Your task to perform on an android device: View the shopping cart on costco. Search for "usb-a to usb-b" on costco, select the first entry, add it to the cart, then select checkout. Image 0: 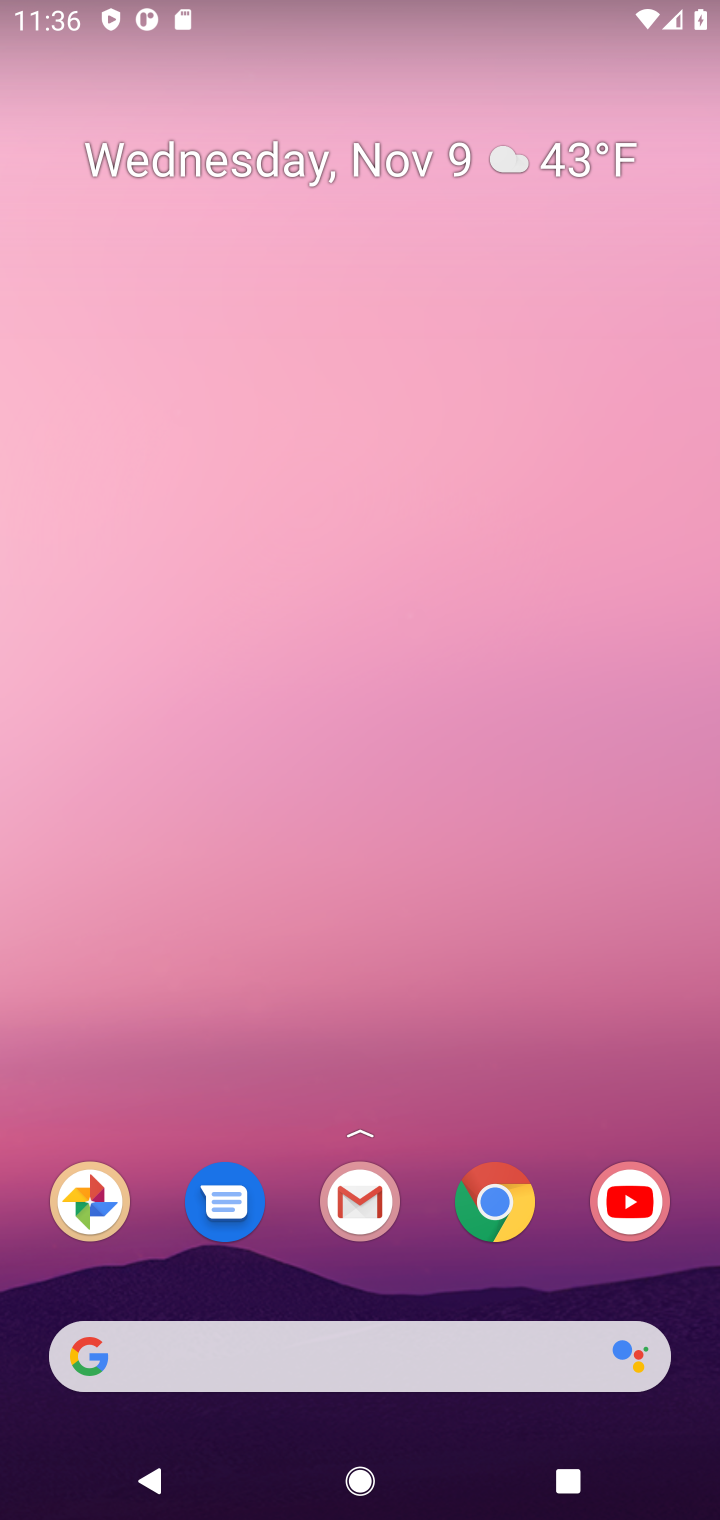
Step 0: click (488, 1204)
Your task to perform on an android device: View the shopping cart on costco. Search for "usb-a to usb-b" on costco, select the first entry, add it to the cart, then select checkout. Image 1: 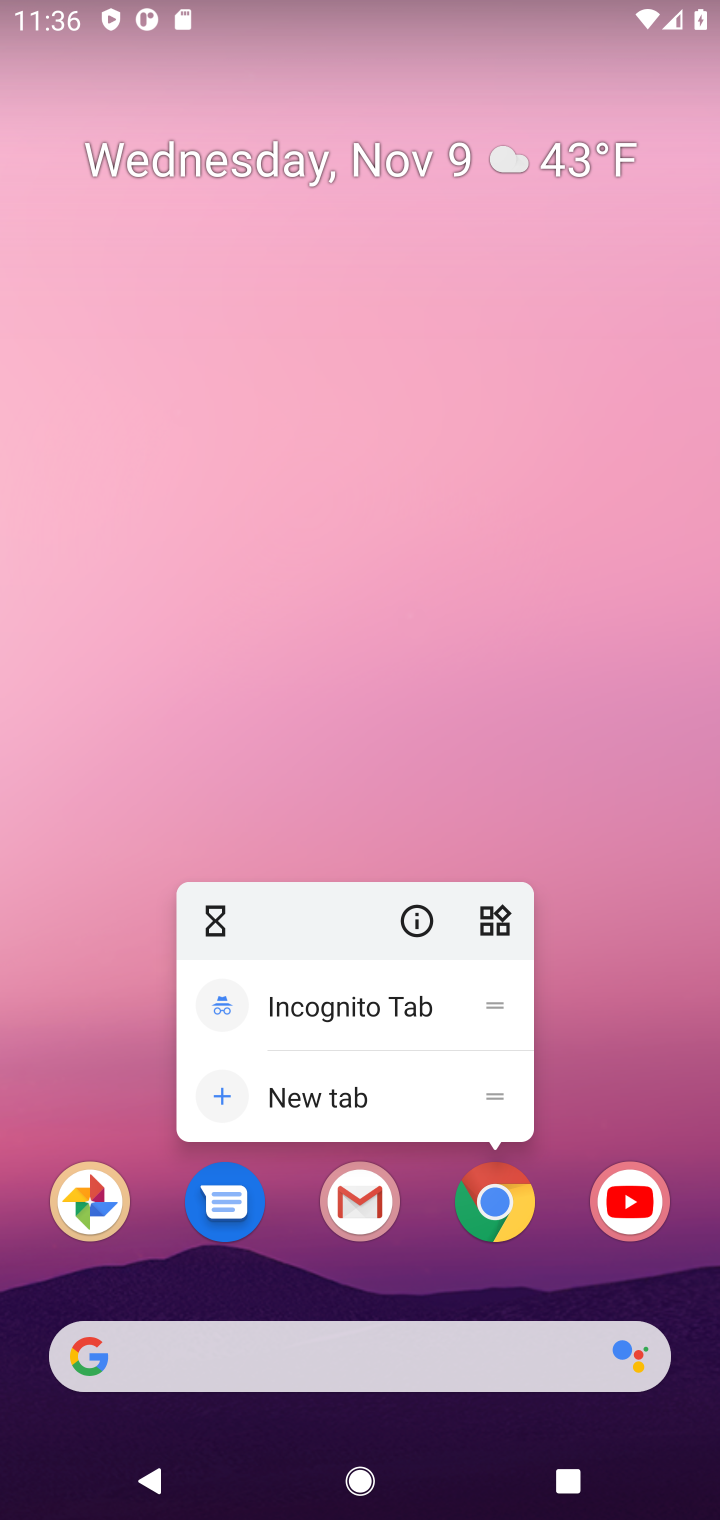
Step 1: click (496, 1208)
Your task to perform on an android device: View the shopping cart on costco. Search for "usb-a to usb-b" on costco, select the first entry, add it to the cart, then select checkout. Image 2: 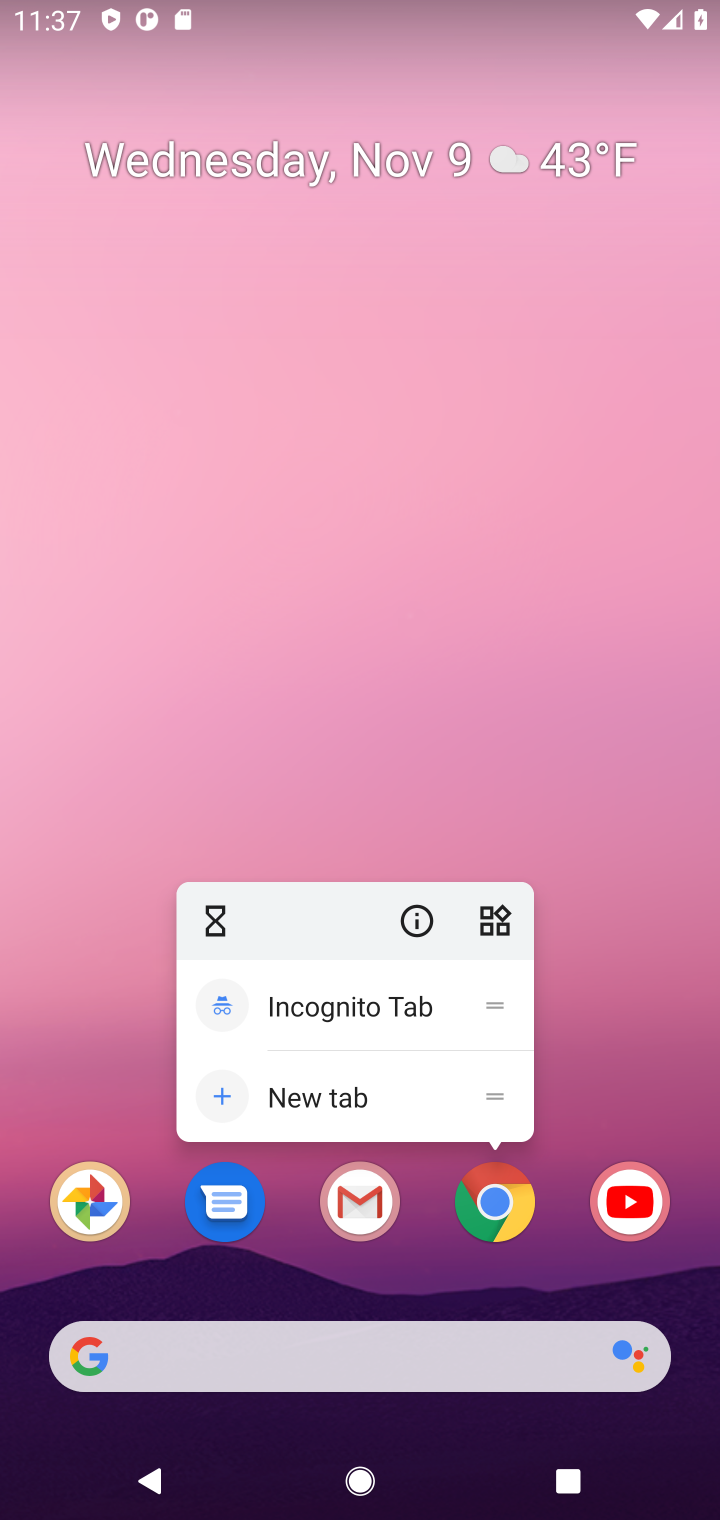
Step 2: click (496, 1208)
Your task to perform on an android device: View the shopping cart on costco. Search for "usb-a to usb-b" on costco, select the first entry, add it to the cart, then select checkout. Image 3: 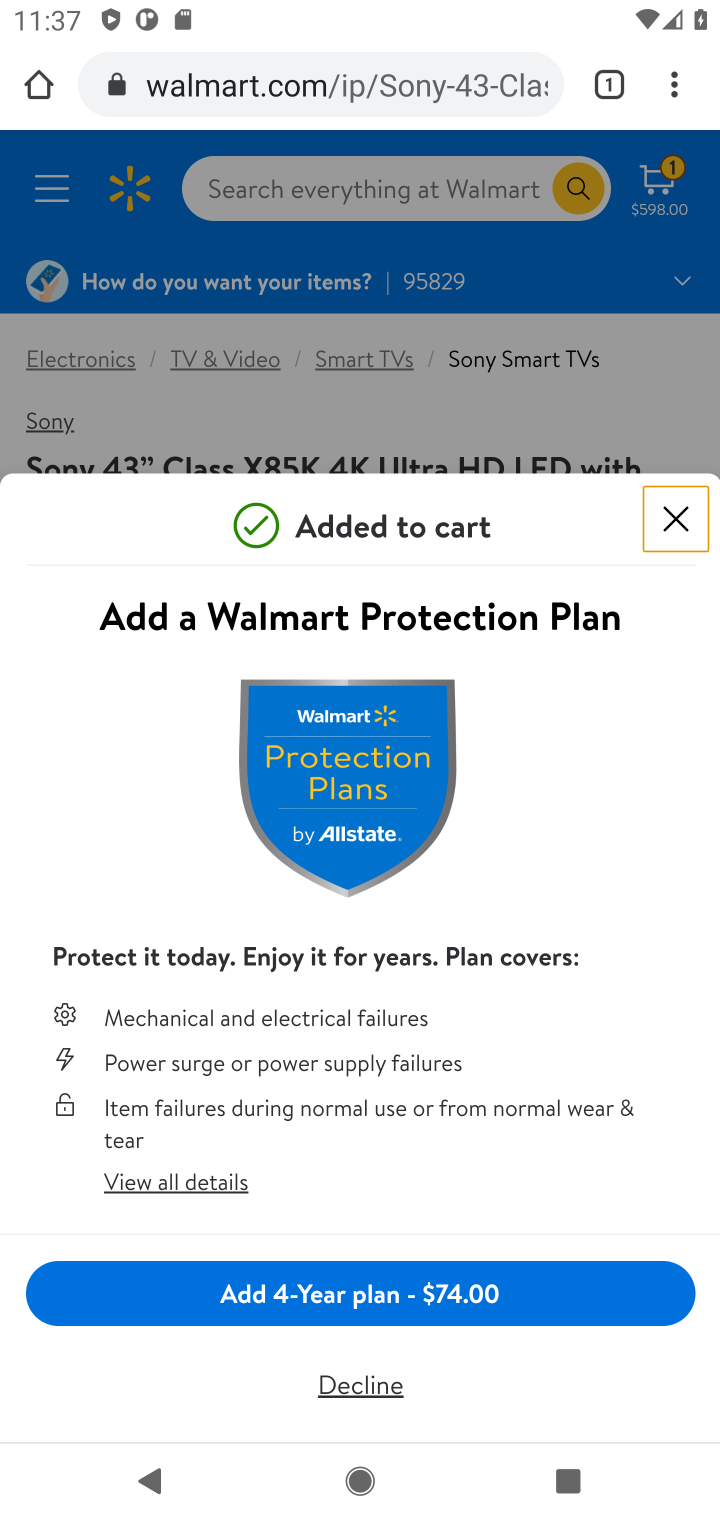
Step 3: click (436, 83)
Your task to perform on an android device: View the shopping cart on costco. Search for "usb-a to usb-b" on costco, select the first entry, add it to the cart, then select checkout. Image 4: 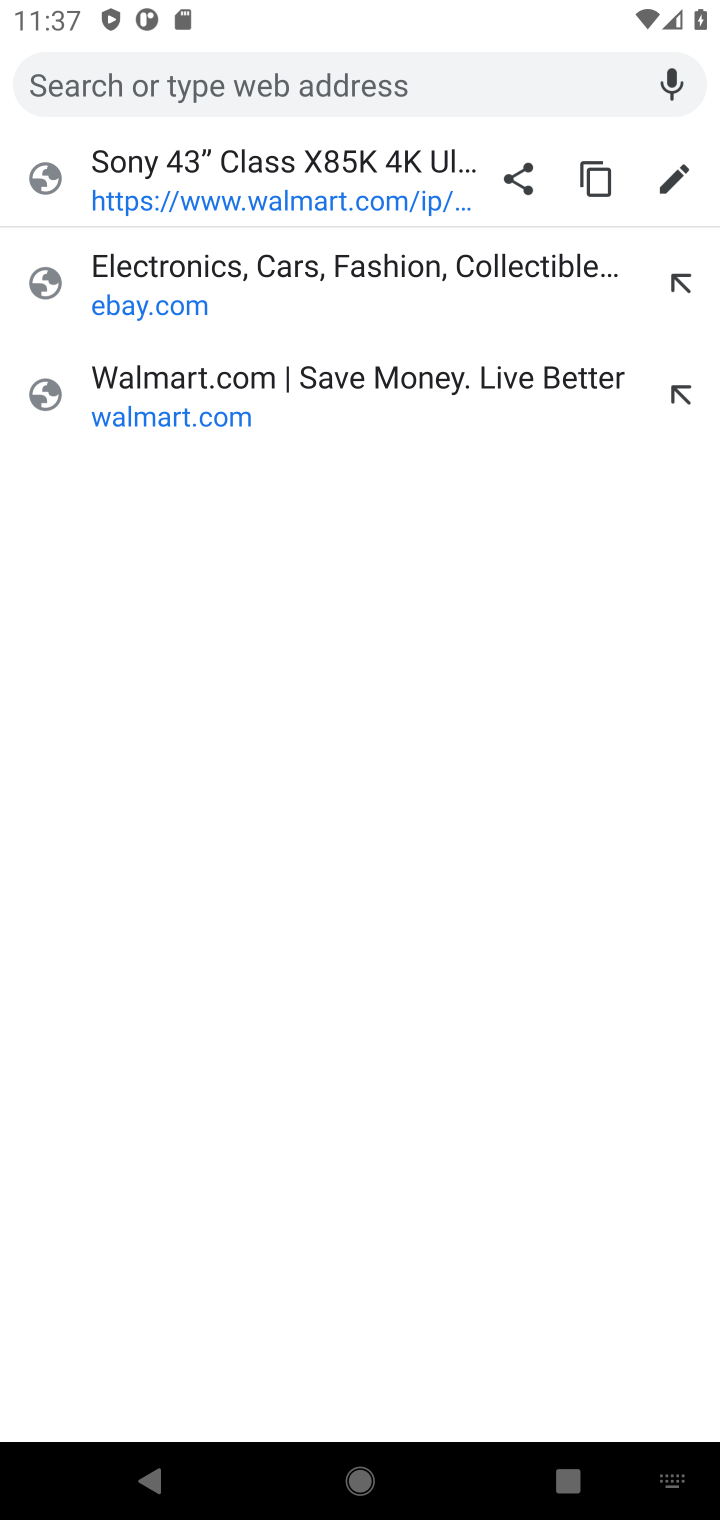
Step 4: type "costco"
Your task to perform on an android device: View the shopping cart on costco. Search for "usb-a to usb-b" on costco, select the first entry, add it to the cart, then select checkout. Image 5: 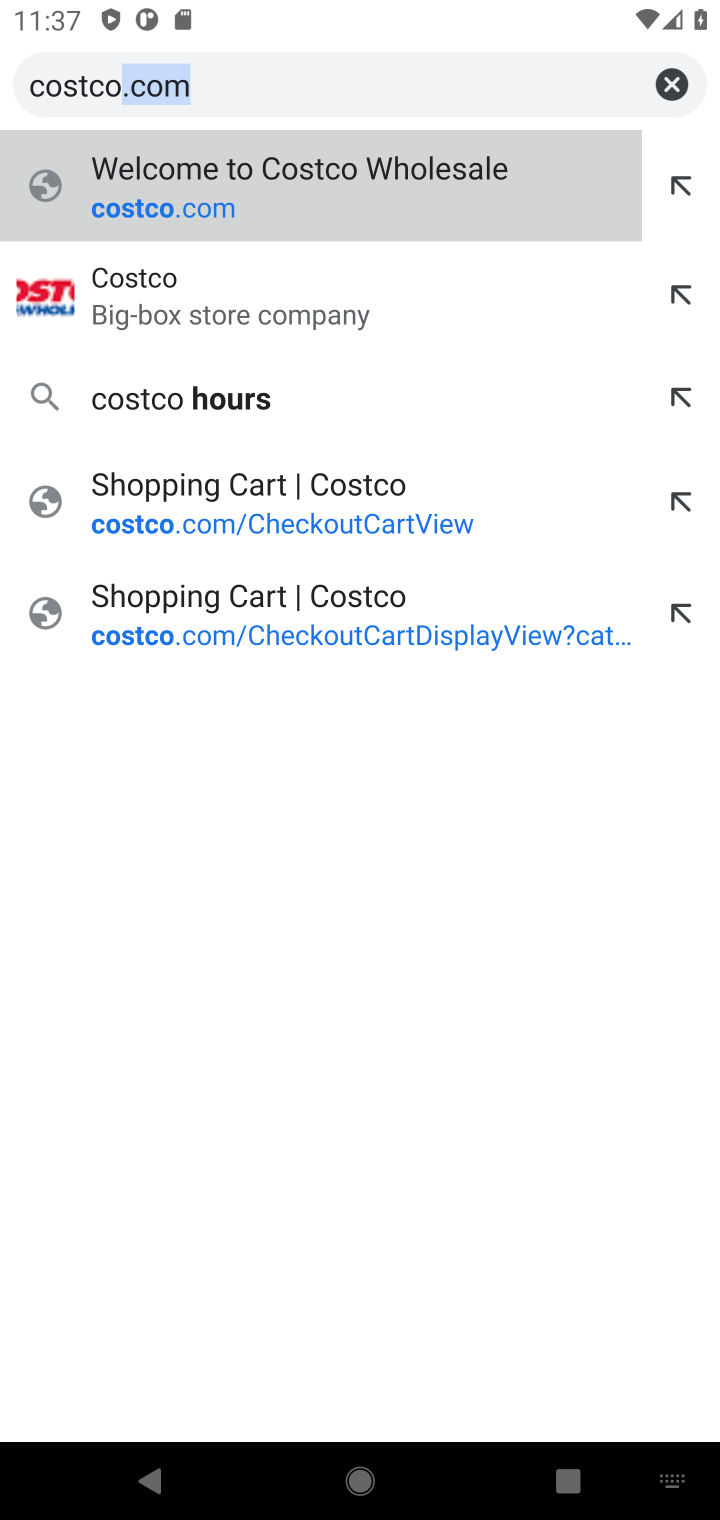
Step 5: press enter
Your task to perform on an android device: View the shopping cart on costco. Search for "usb-a to usb-b" on costco, select the first entry, add it to the cart, then select checkout. Image 6: 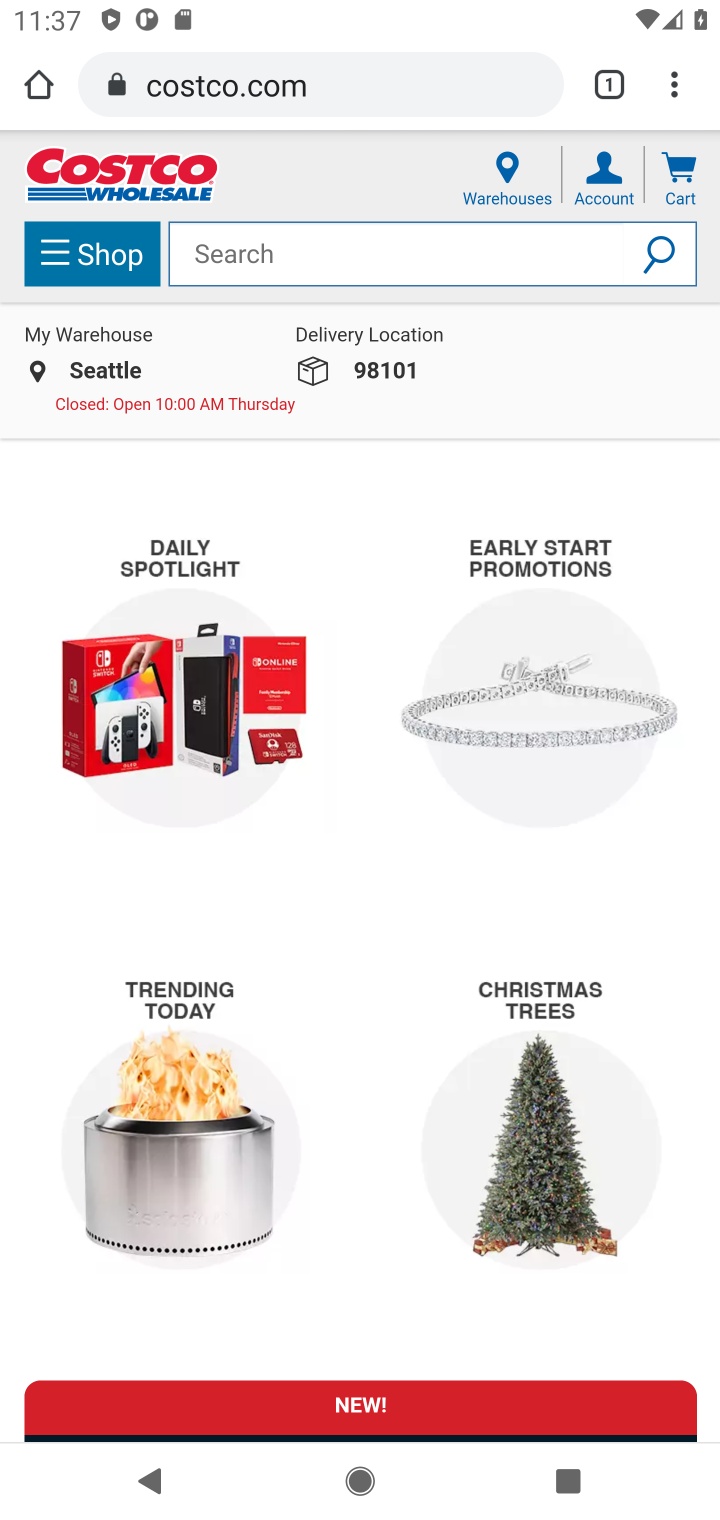
Step 6: click (411, 266)
Your task to perform on an android device: View the shopping cart on costco. Search for "usb-a to usb-b" on costco, select the first entry, add it to the cart, then select checkout. Image 7: 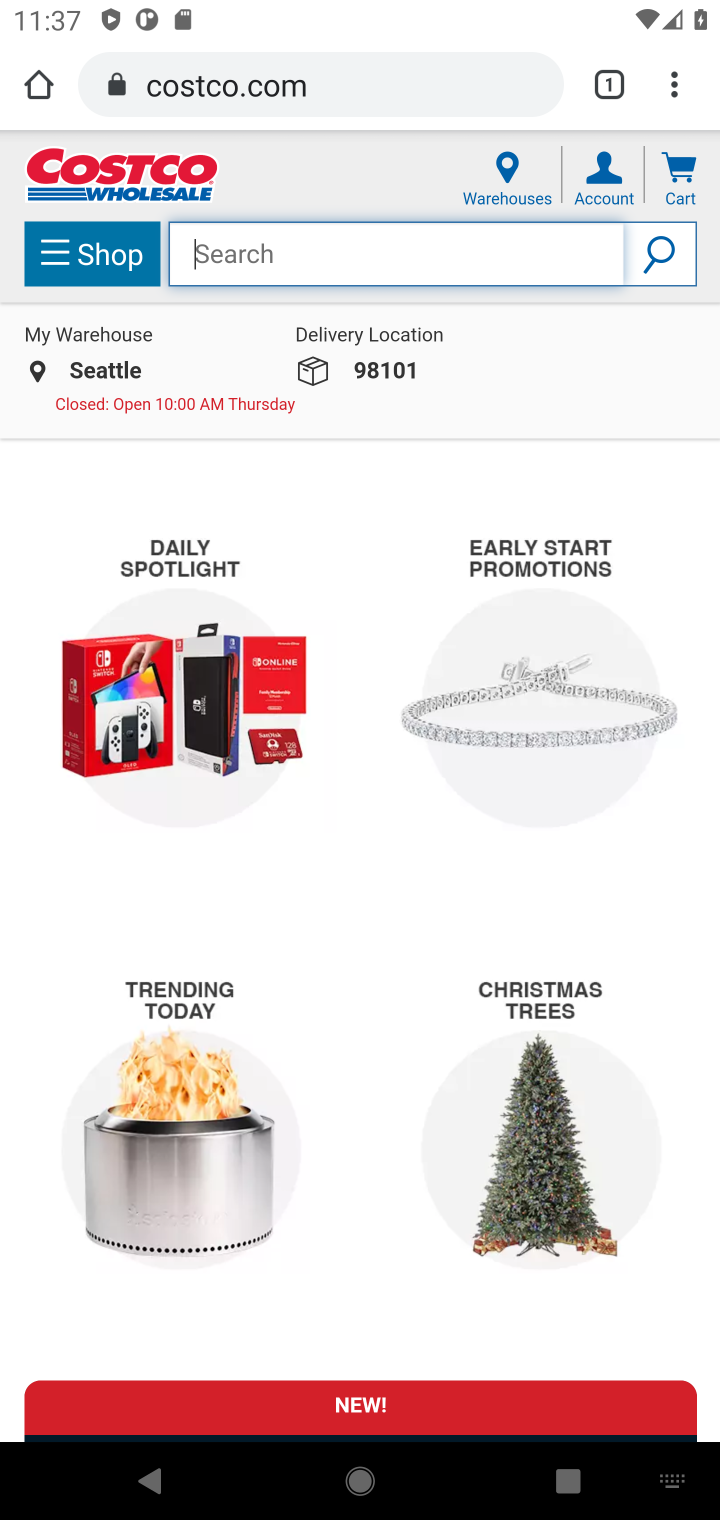
Step 7: press enter
Your task to perform on an android device: View the shopping cart on costco. Search for "usb-a to usb-b" on costco, select the first entry, add it to the cart, then select checkout. Image 8: 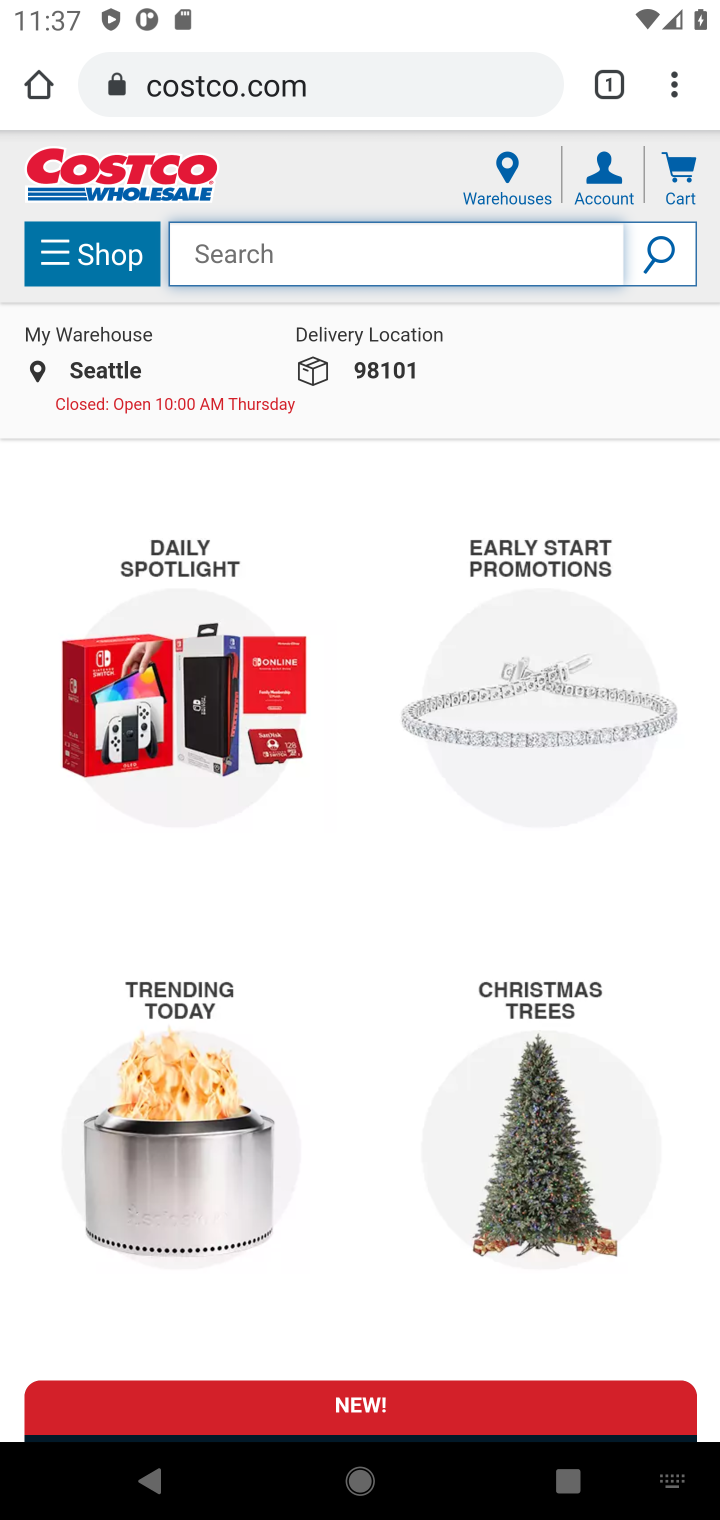
Step 8: type "usb-a to usb-b"
Your task to perform on an android device: View the shopping cart on costco. Search for "usb-a to usb-b" on costco, select the first entry, add it to the cart, then select checkout. Image 9: 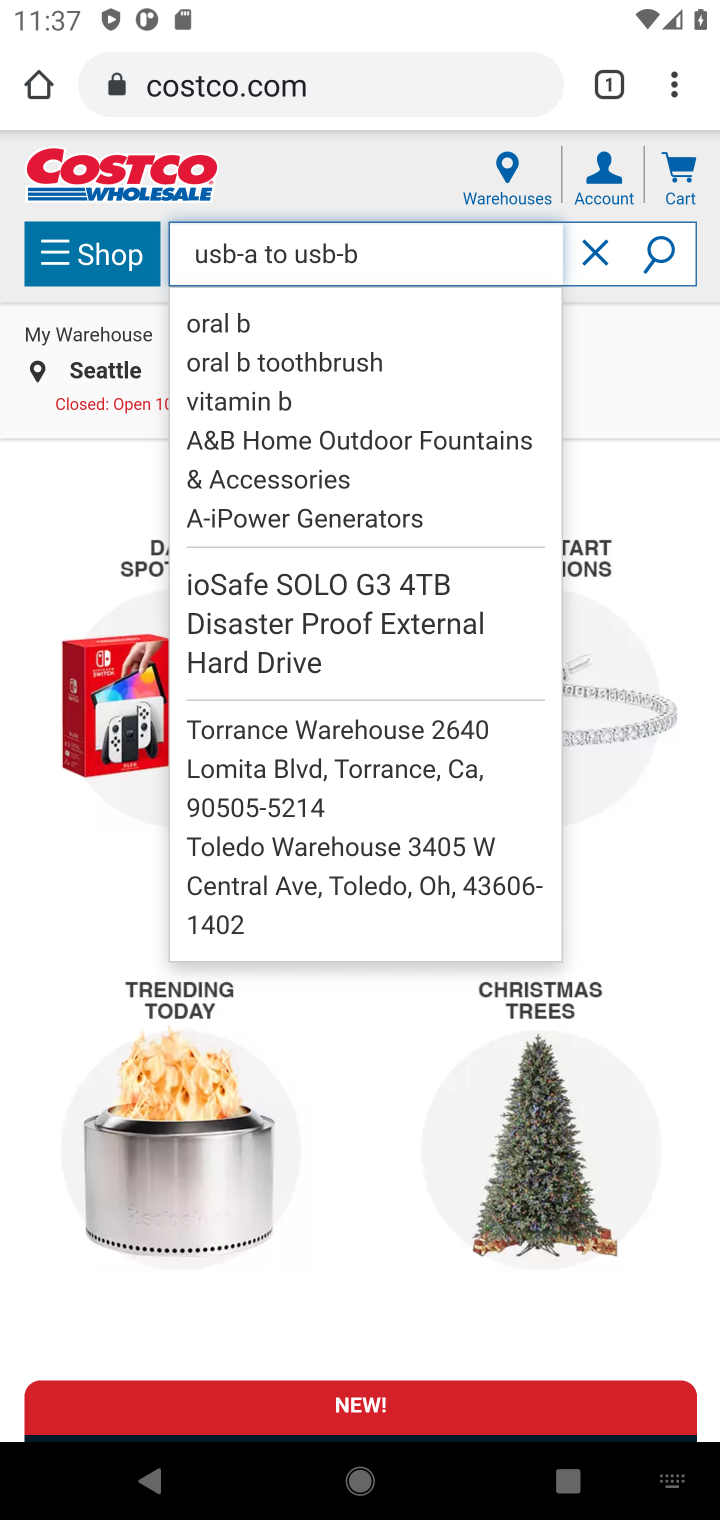
Step 9: click (670, 375)
Your task to perform on an android device: View the shopping cart on costco. Search for "usb-a to usb-b" on costco, select the first entry, add it to the cart, then select checkout. Image 10: 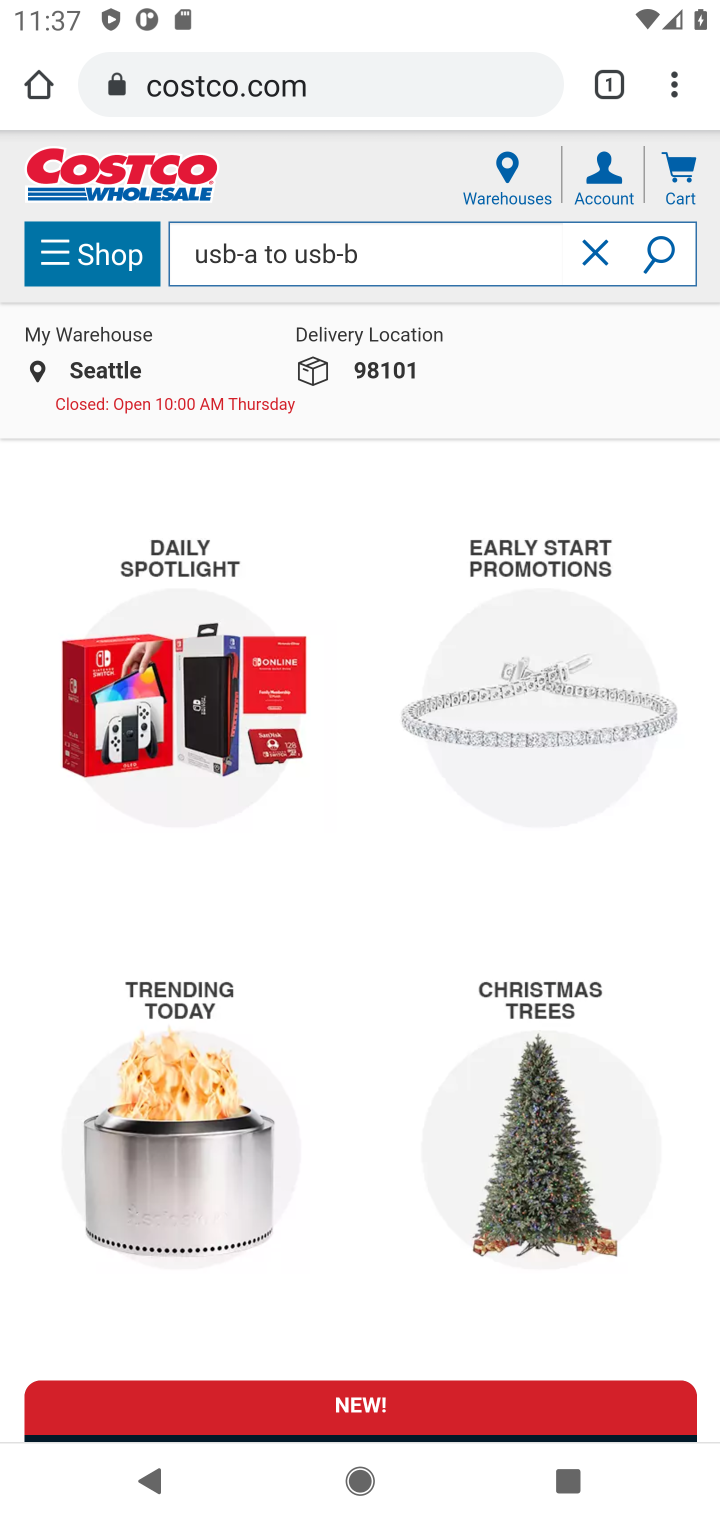
Step 10: click (435, 249)
Your task to perform on an android device: View the shopping cart on costco. Search for "usb-a to usb-b" on costco, select the first entry, add it to the cart, then select checkout. Image 11: 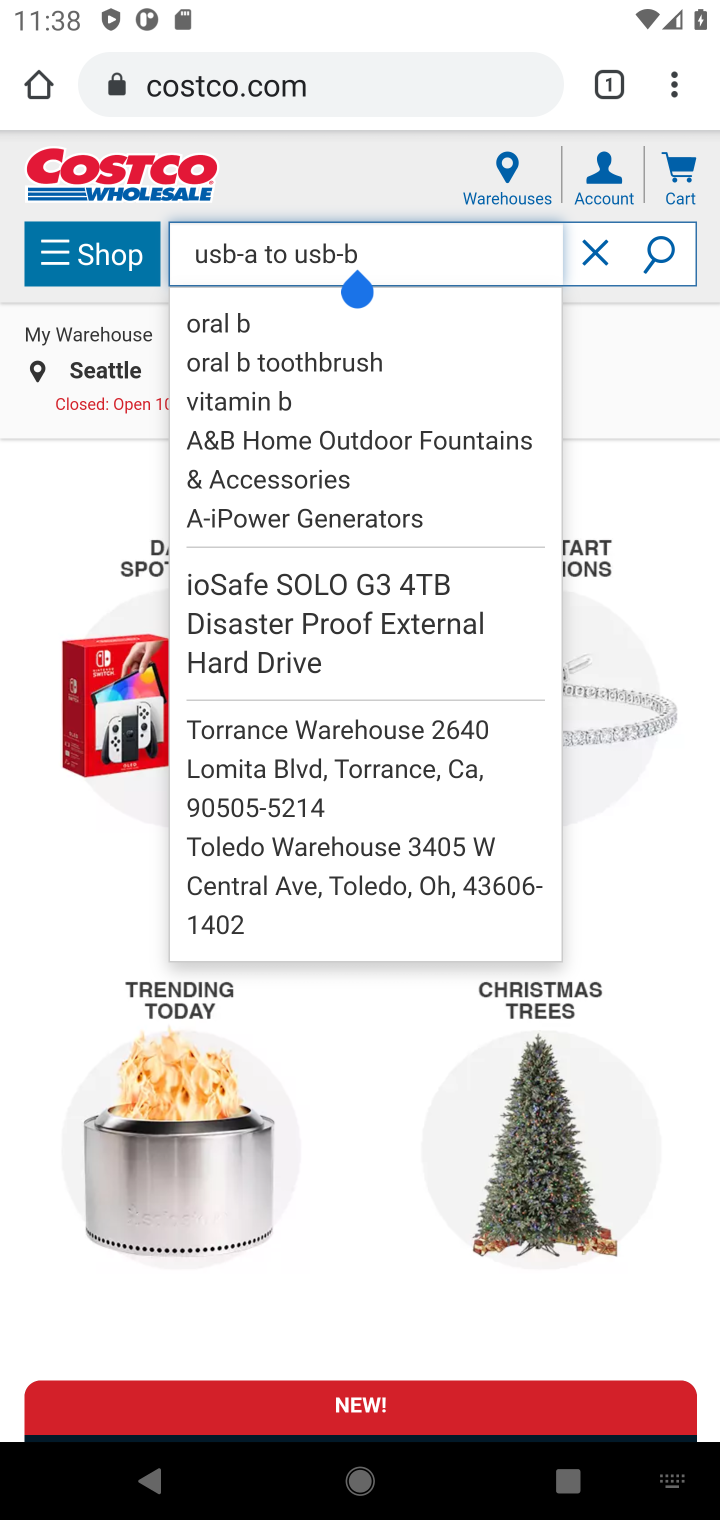
Step 11: click (624, 381)
Your task to perform on an android device: View the shopping cart on costco. Search for "usb-a to usb-b" on costco, select the first entry, add it to the cart, then select checkout. Image 12: 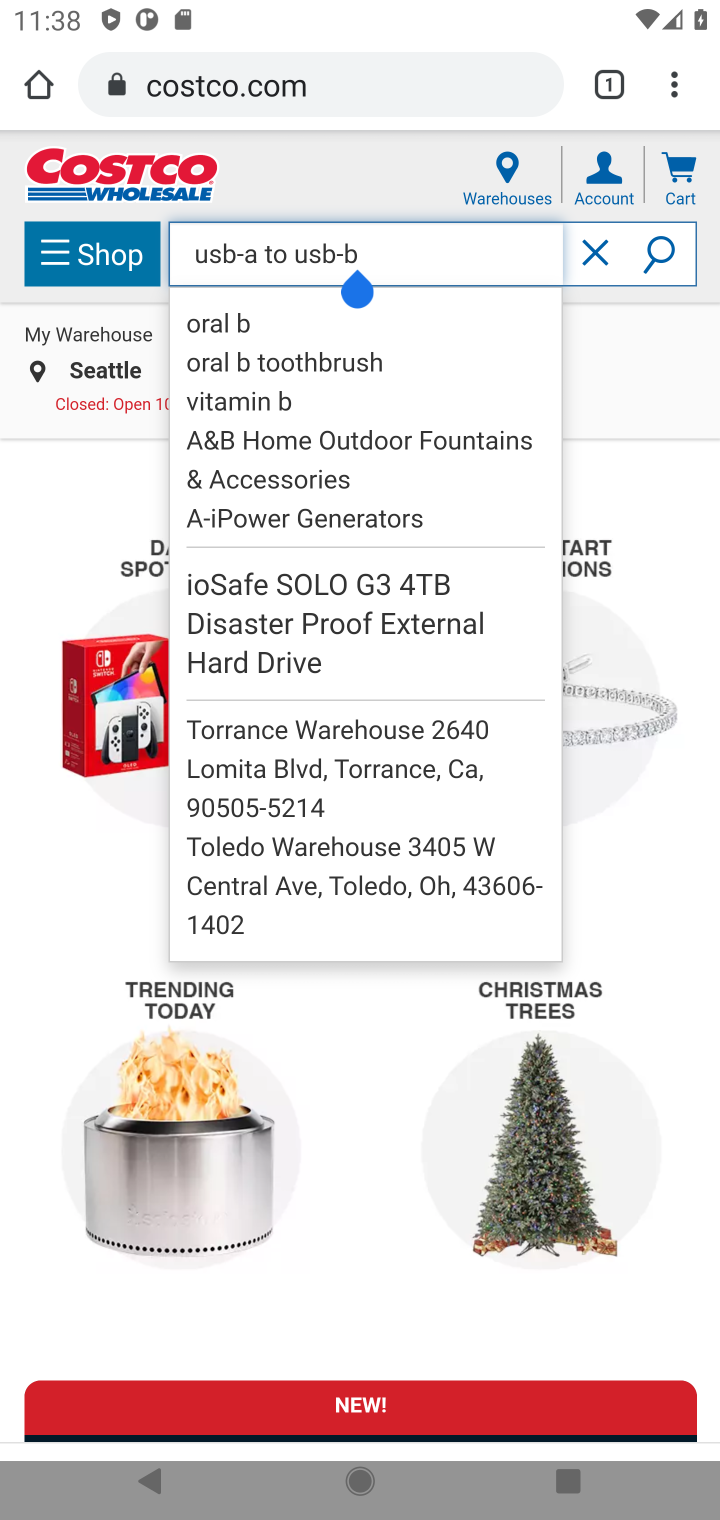
Step 12: task complete